Your task to perform on an android device: toggle translation in the chrome app Image 0: 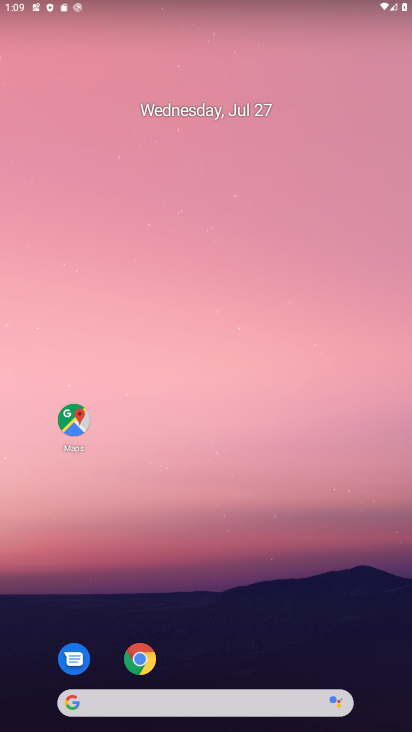
Step 0: drag from (284, 617) to (230, 9)
Your task to perform on an android device: toggle translation in the chrome app Image 1: 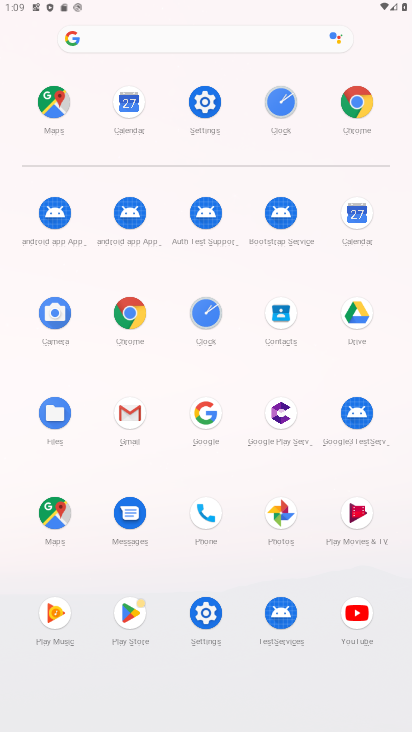
Step 1: click (362, 103)
Your task to perform on an android device: toggle translation in the chrome app Image 2: 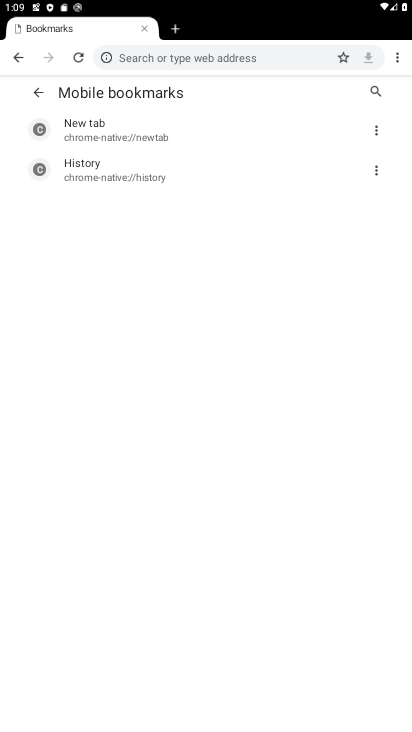
Step 2: drag from (397, 59) to (318, 262)
Your task to perform on an android device: toggle translation in the chrome app Image 3: 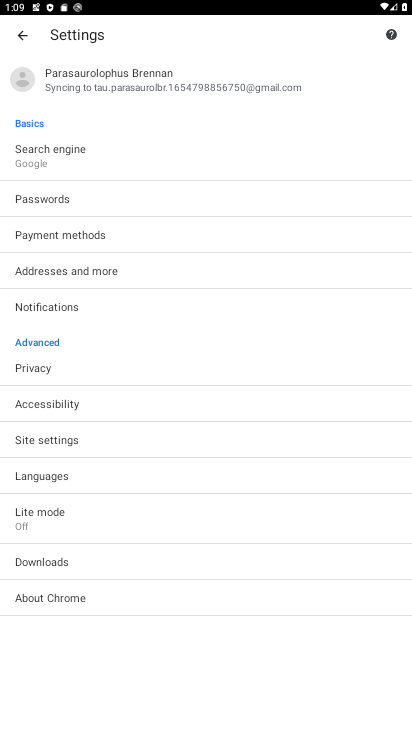
Step 3: click (50, 484)
Your task to perform on an android device: toggle translation in the chrome app Image 4: 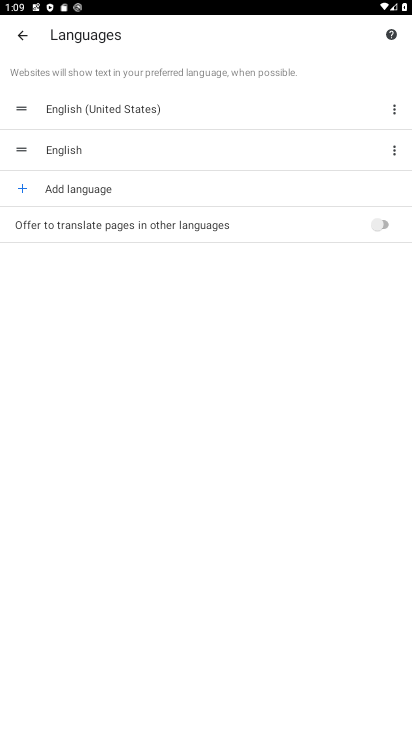
Step 4: click (366, 230)
Your task to perform on an android device: toggle translation in the chrome app Image 5: 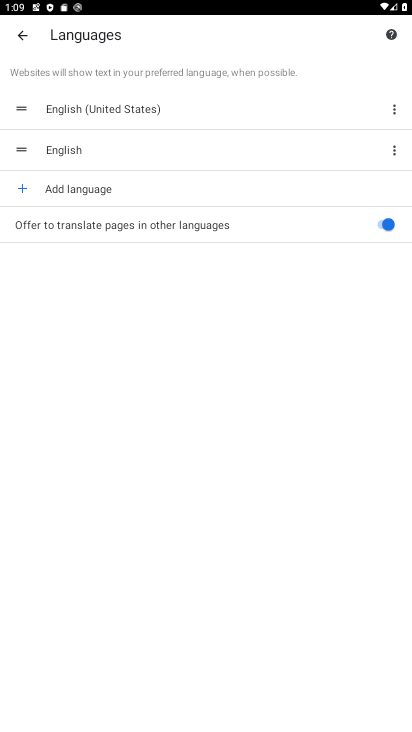
Step 5: task complete